Your task to perform on an android device: Search for pizza restaurants on Maps Image 0: 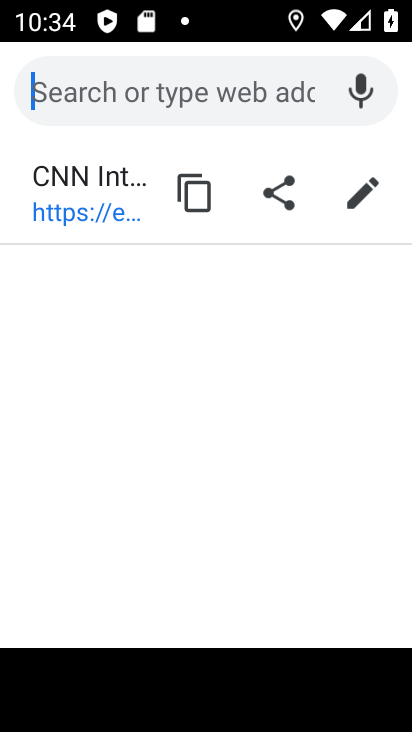
Step 0: press home button
Your task to perform on an android device: Search for pizza restaurants on Maps Image 1: 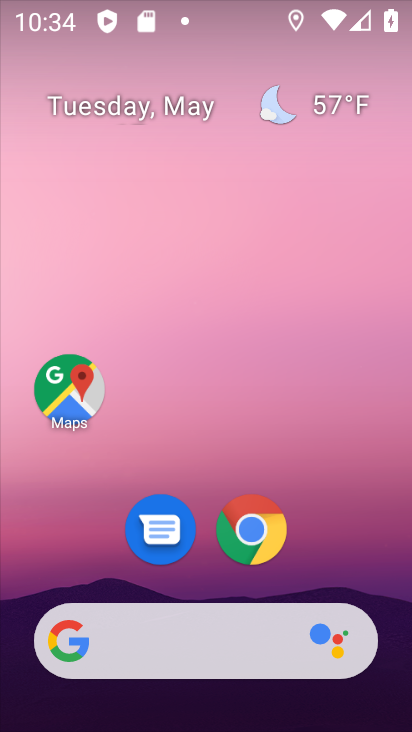
Step 1: click (71, 400)
Your task to perform on an android device: Search for pizza restaurants on Maps Image 2: 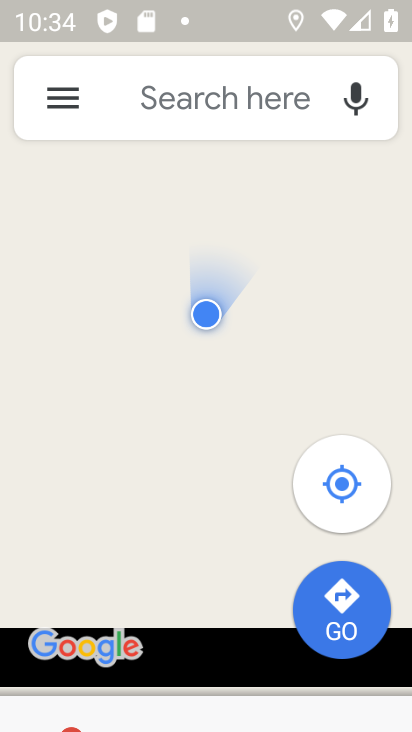
Step 2: click (191, 115)
Your task to perform on an android device: Search for pizza restaurants on Maps Image 3: 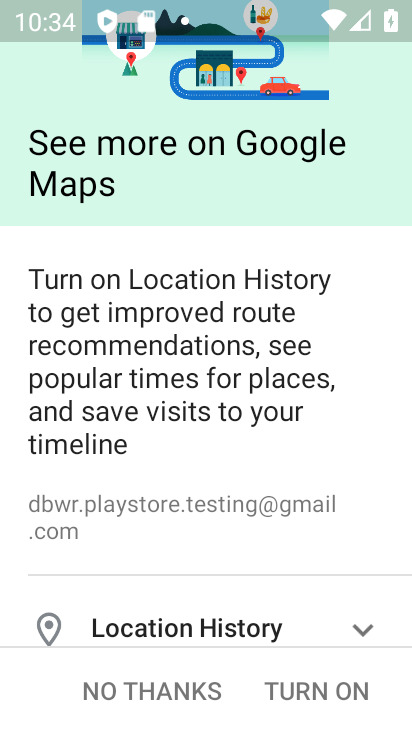
Step 3: click (299, 716)
Your task to perform on an android device: Search for pizza restaurants on Maps Image 4: 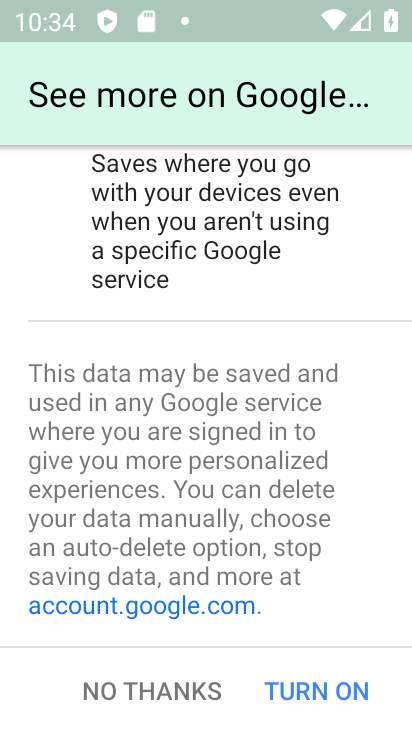
Step 4: click (299, 716)
Your task to perform on an android device: Search for pizza restaurants on Maps Image 5: 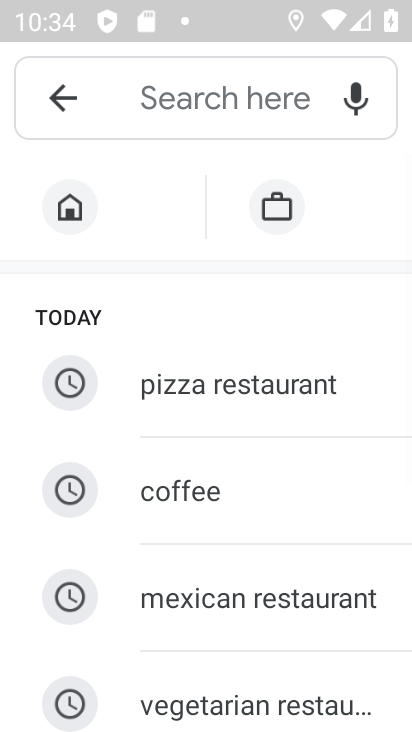
Step 5: click (122, 83)
Your task to perform on an android device: Search for pizza restaurants on Maps Image 6: 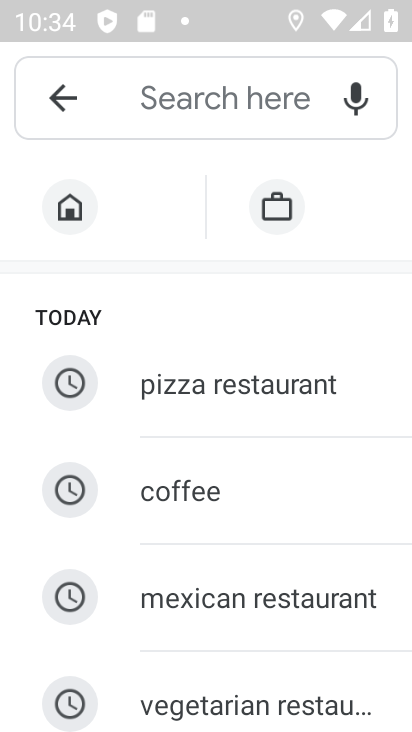
Step 6: click (218, 409)
Your task to perform on an android device: Search for pizza restaurants on Maps Image 7: 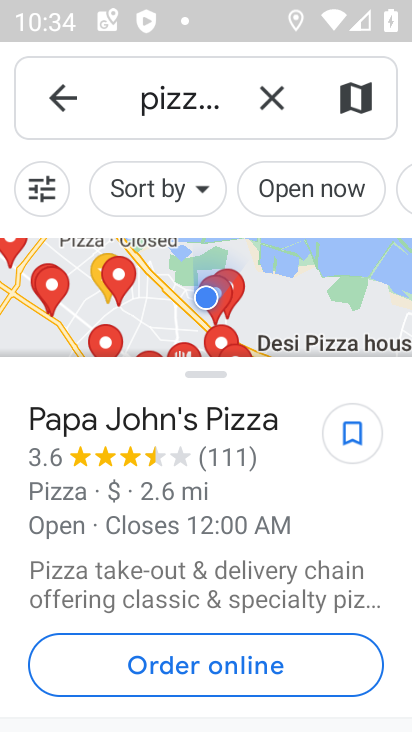
Step 7: task complete